Your task to perform on an android device: Is it going to rain tomorrow? Image 0: 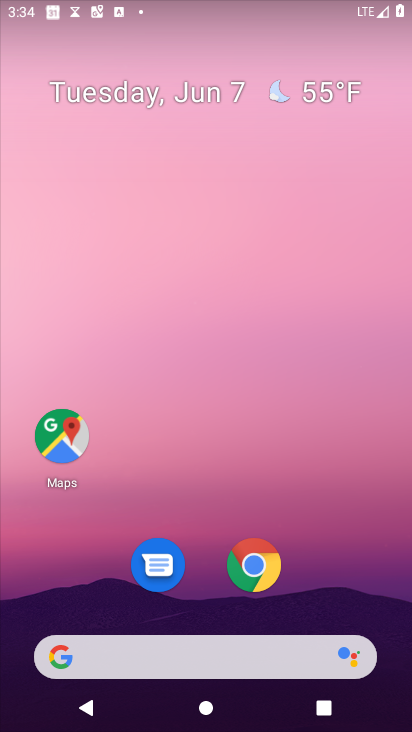
Step 0: drag from (279, 624) to (275, 12)
Your task to perform on an android device: Is it going to rain tomorrow? Image 1: 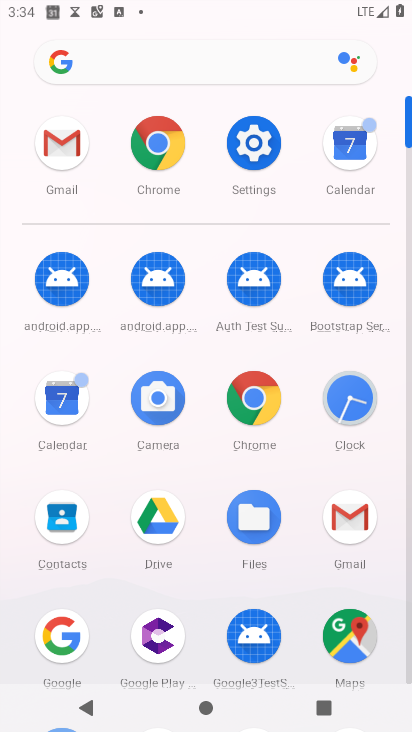
Step 1: click (82, 398)
Your task to perform on an android device: Is it going to rain tomorrow? Image 2: 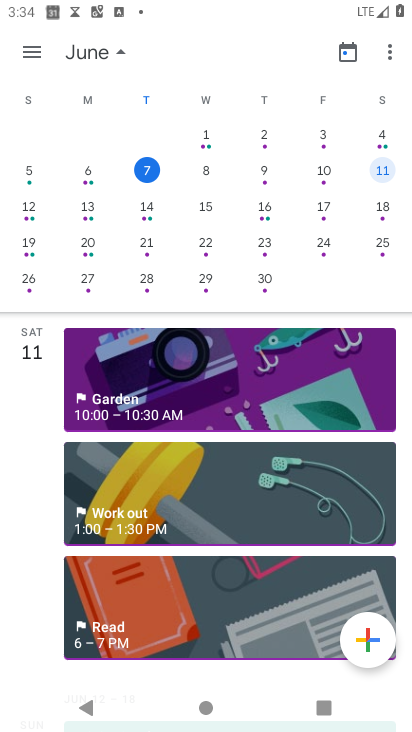
Step 2: press home button
Your task to perform on an android device: Is it going to rain tomorrow? Image 3: 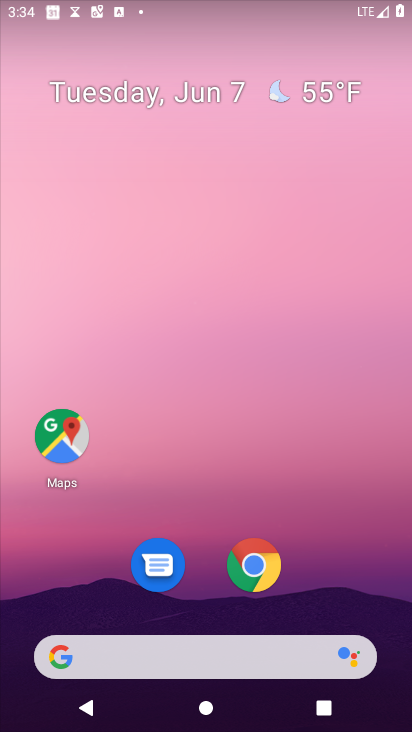
Step 3: drag from (15, 195) to (390, 212)
Your task to perform on an android device: Is it going to rain tomorrow? Image 4: 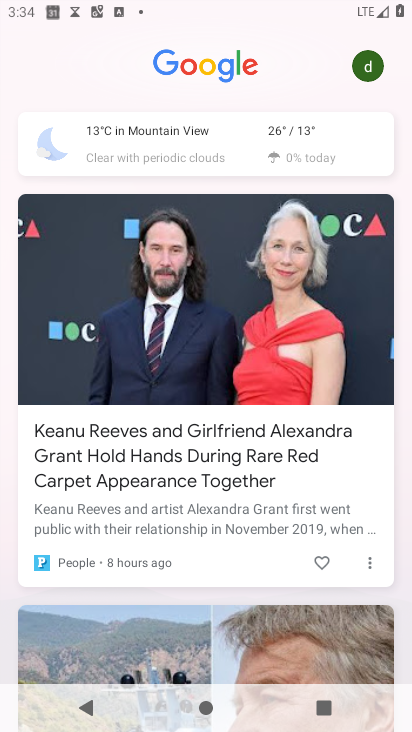
Step 4: click (199, 153)
Your task to perform on an android device: Is it going to rain tomorrow? Image 5: 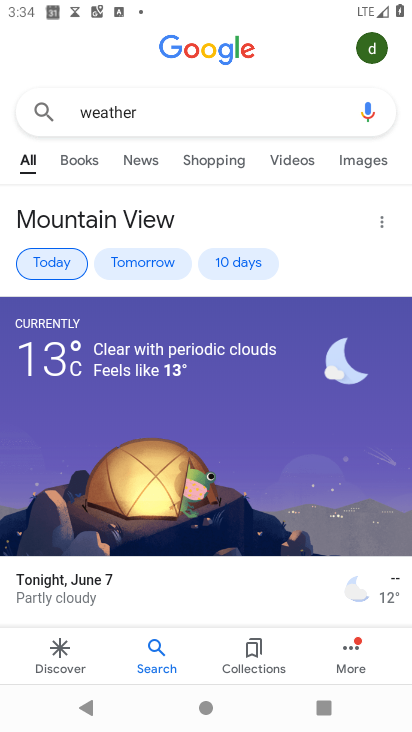
Step 5: click (157, 261)
Your task to perform on an android device: Is it going to rain tomorrow? Image 6: 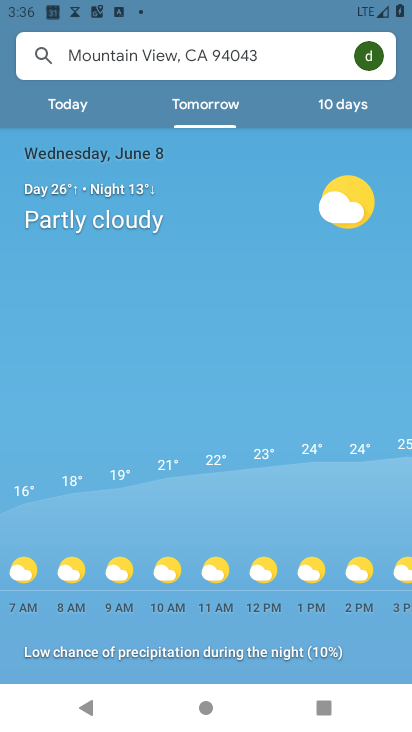
Step 6: task complete